Your task to perform on an android device: Open battery settings Image 0: 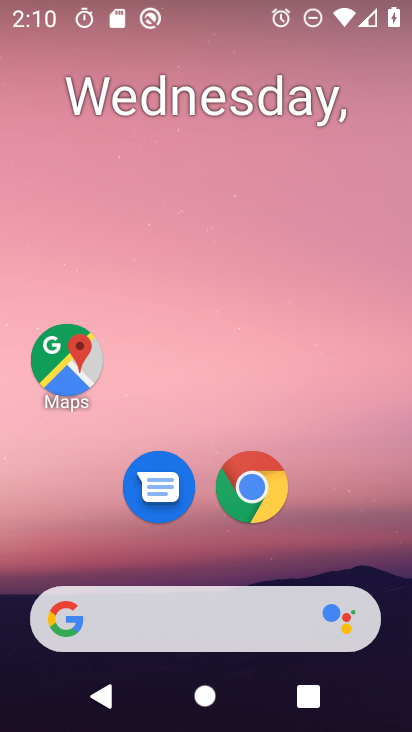
Step 0: drag from (268, 544) to (369, 9)
Your task to perform on an android device: Open battery settings Image 1: 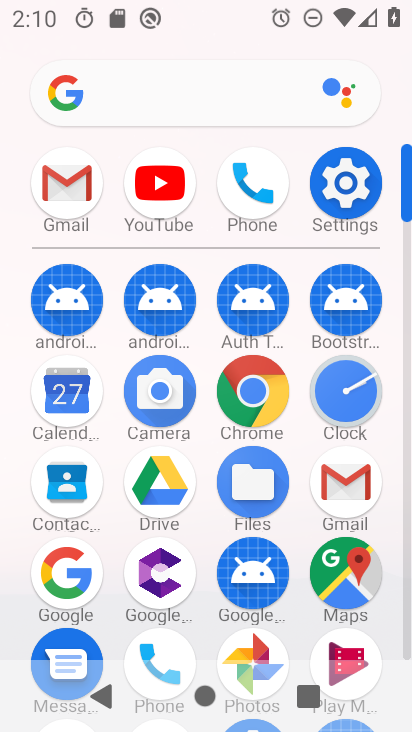
Step 1: click (342, 192)
Your task to perform on an android device: Open battery settings Image 2: 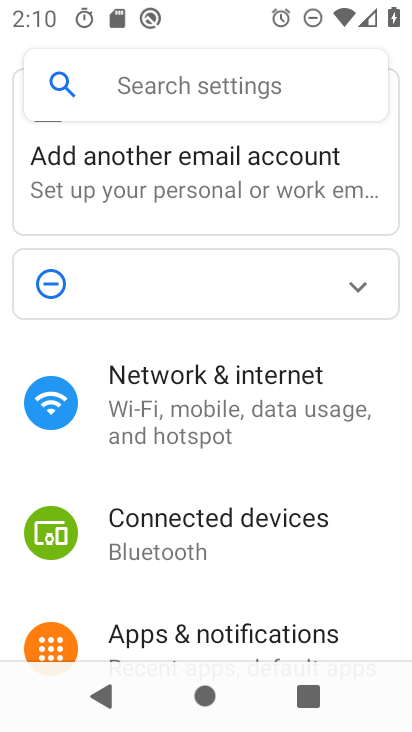
Step 2: drag from (161, 601) to (274, 114)
Your task to perform on an android device: Open battery settings Image 3: 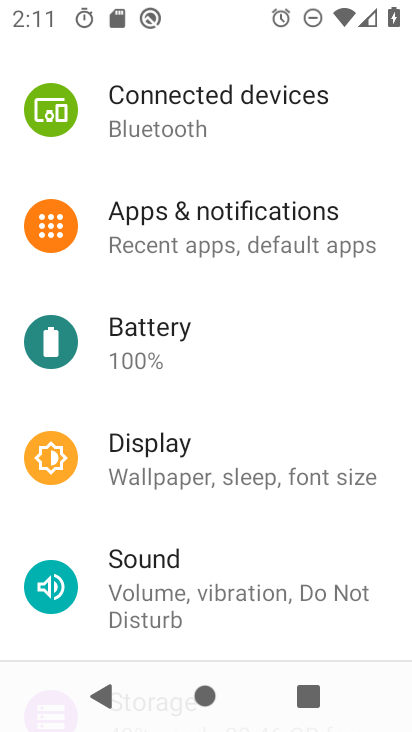
Step 3: click (130, 333)
Your task to perform on an android device: Open battery settings Image 4: 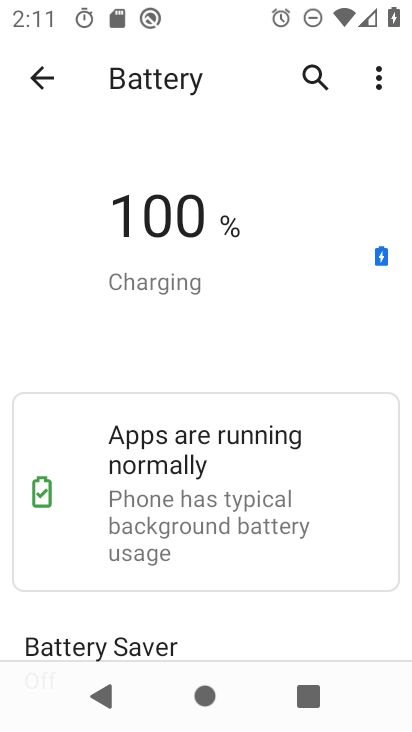
Step 4: task complete